Your task to perform on an android device: snooze an email in the gmail app Image 0: 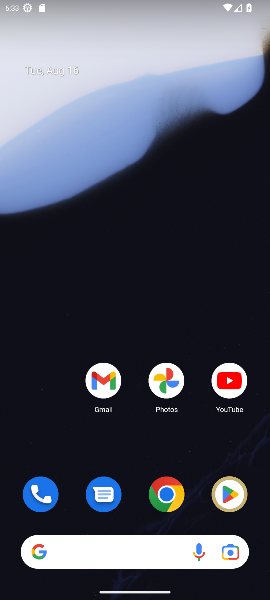
Step 0: drag from (59, 404) to (113, 140)
Your task to perform on an android device: snooze an email in the gmail app Image 1: 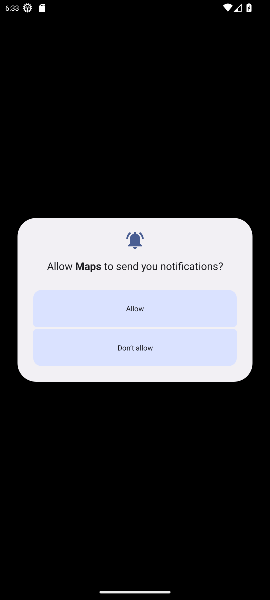
Step 1: press home button
Your task to perform on an android device: snooze an email in the gmail app Image 2: 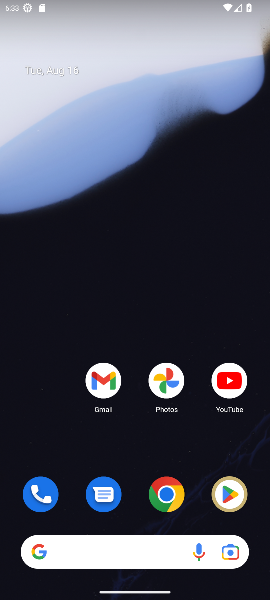
Step 2: click (110, 376)
Your task to perform on an android device: snooze an email in the gmail app Image 3: 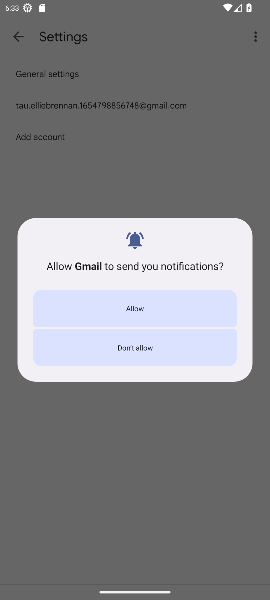
Step 3: click (134, 353)
Your task to perform on an android device: snooze an email in the gmail app Image 4: 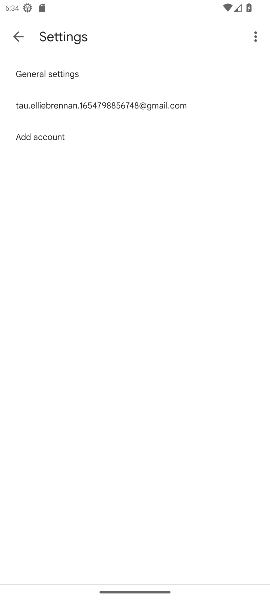
Step 4: click (16, 34)
Your task to perform on an android device: snooze an email in the gmail app Image 5: 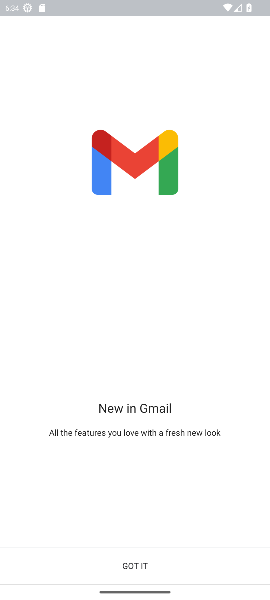
Step 5: click (146, 564)
Your task to perform on an android device: snooze an email in the gmail app Image 6: 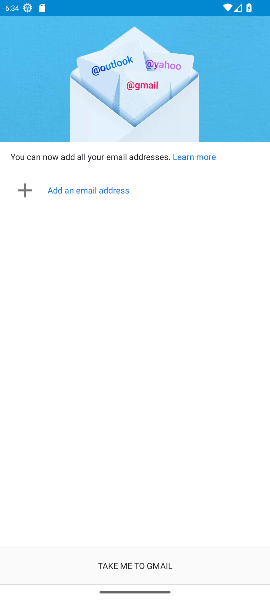
Step 6: click (131, 559)
Your task to perform on an android device: snooze an email in the gmail app Image 7: 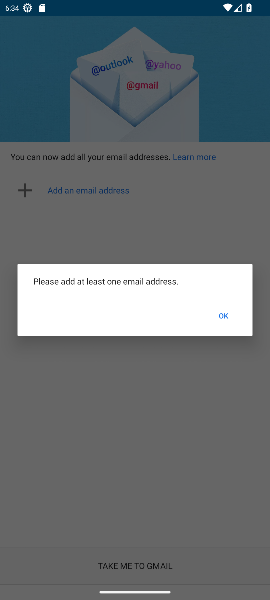
Step 7: click (225, 315)
Your task to perform on an android device: snooze an email in the gmail app Image 8: 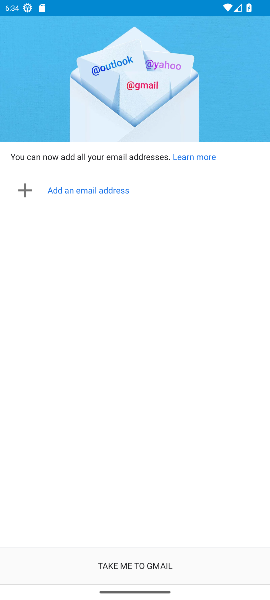
Step 8: task complete